Your task to perform on an android device: toggle priority inbox in the gmail app Image 0: 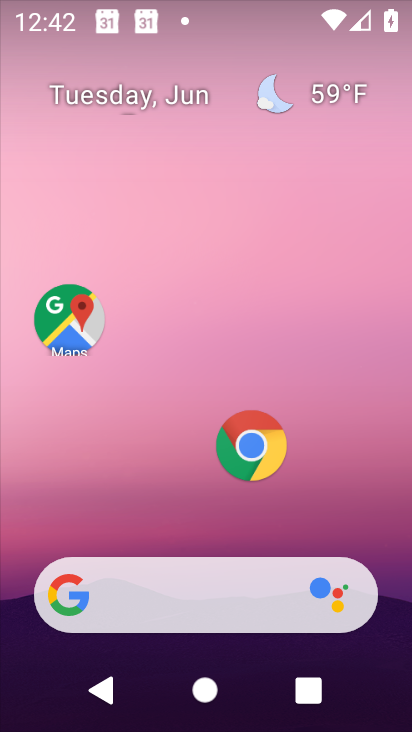
Step 0: drag from (145, 506) to (134, 63)
Your task to perform on an android device: toggle priority inbox in the gmail app Image 1: 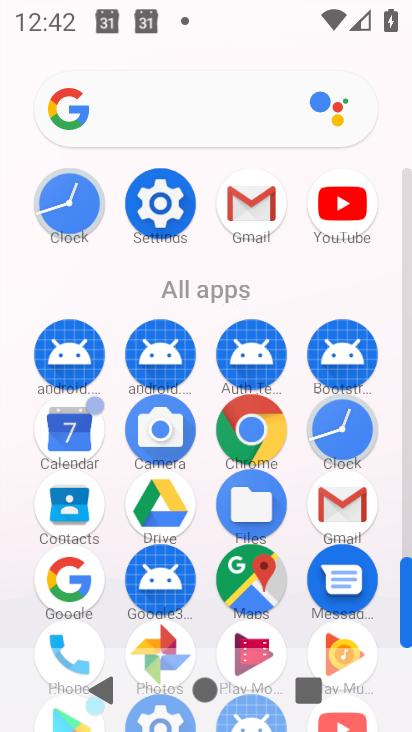
Step 1: click (246, 232)
Your task to perform on an android device: toggle priority inbox in the gmail app Image 2: 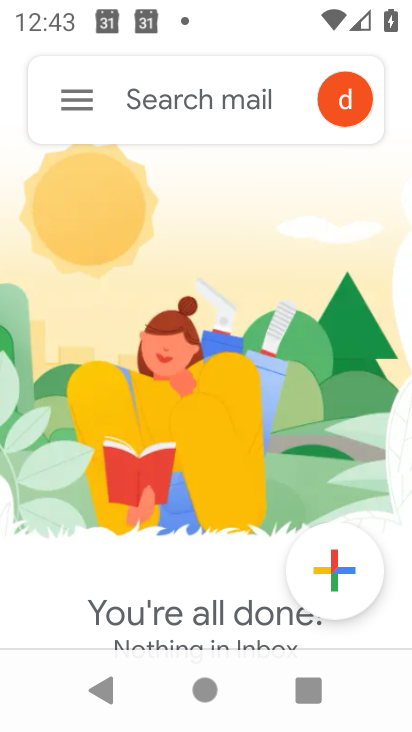
Step 2: click (52, 138)
Your task to perform on an android device: toggle priority inbox in the gmail app Image 3: 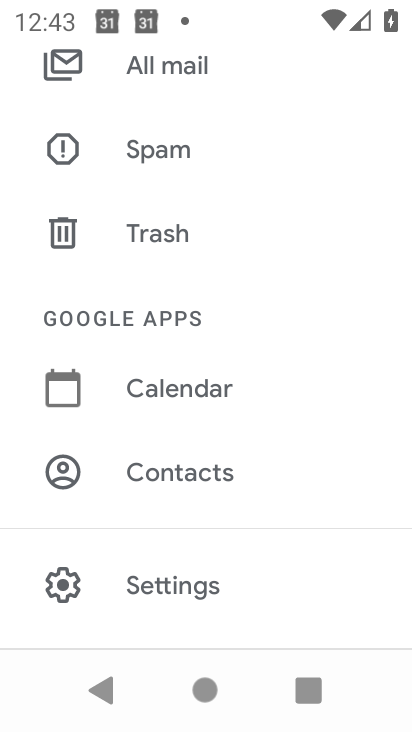
Step 3: click (162, 591)
Your task to perform on an android device: toggle priority inbox in the gmail app Image 4: 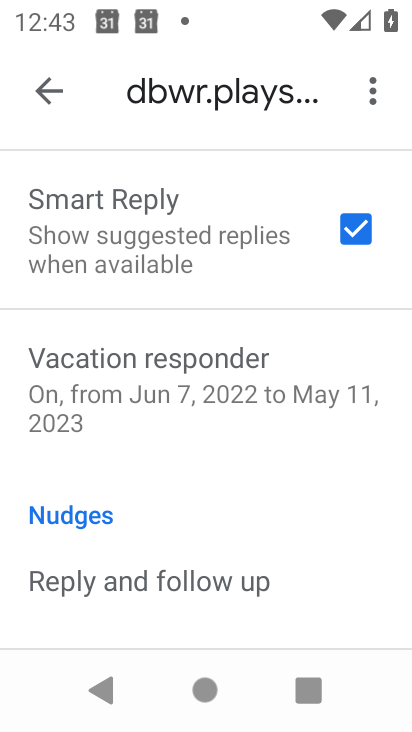
Step 4: task complete